Your task to perform on an android device: Search for "dell xps" on walmart, select the first entry, and add it to the cart. Image 0: 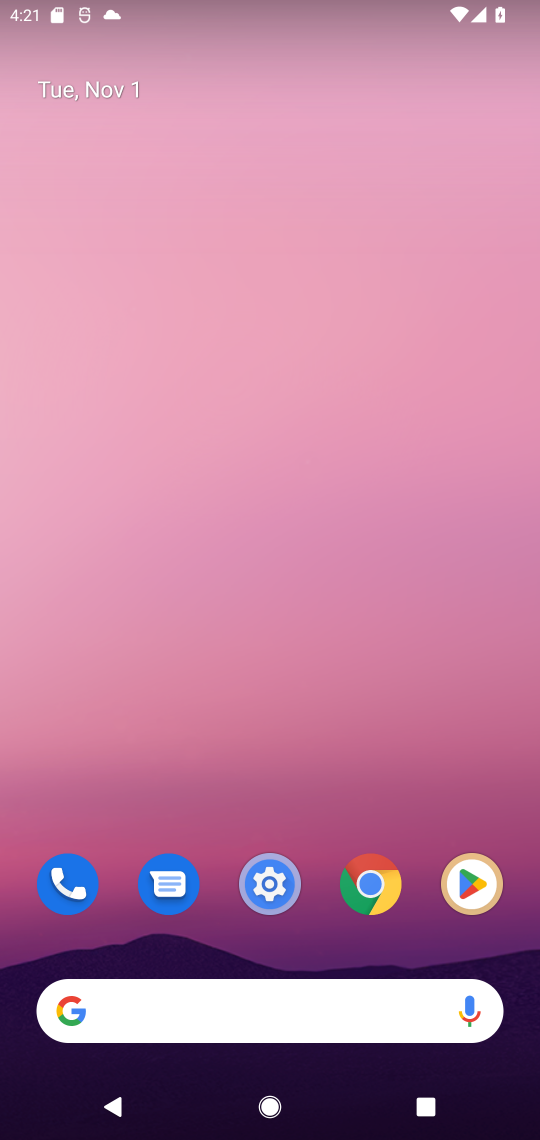
Step 0: press home button
Your task to perform on an android device: Search for "dell xps" on walmart, select the first entry, and add it to the cart. Image 1: 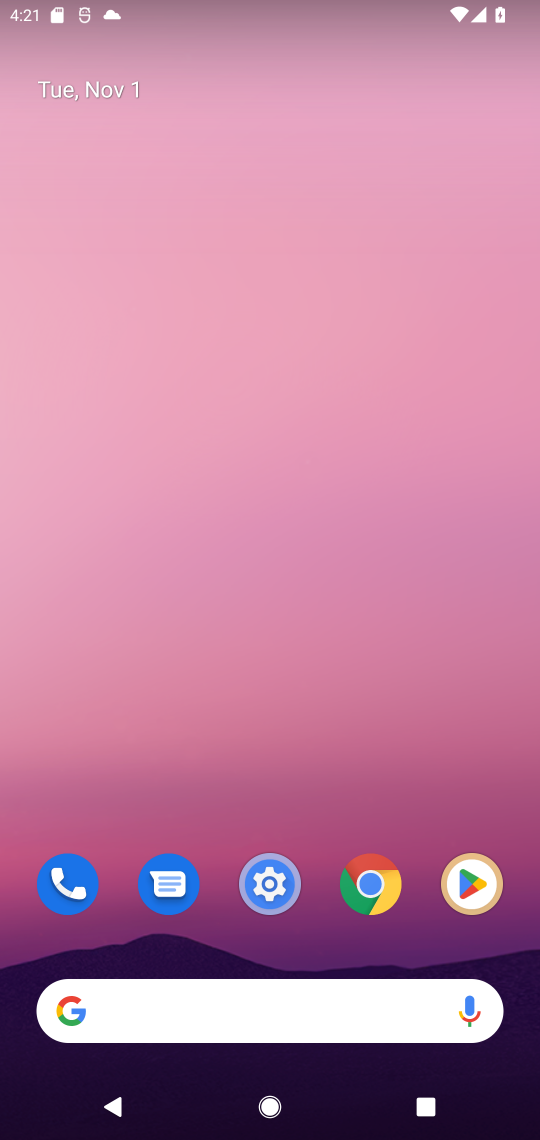
Step 1: click (93, 1020)
Your task to perform on an android device: Search for "dell xps" on walmart, select the first entry, and add it to the cart. Image 2: 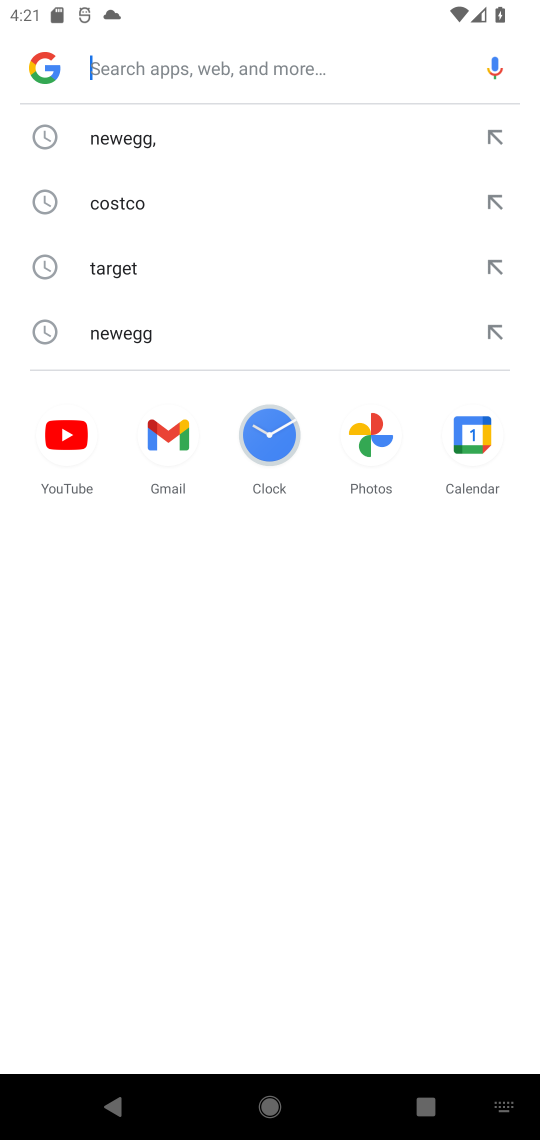
Step 2: press enter
Your task to perform on an android device: Search for "dell xps" on walmart, select the first entry, and add it to the cart. Image 3: 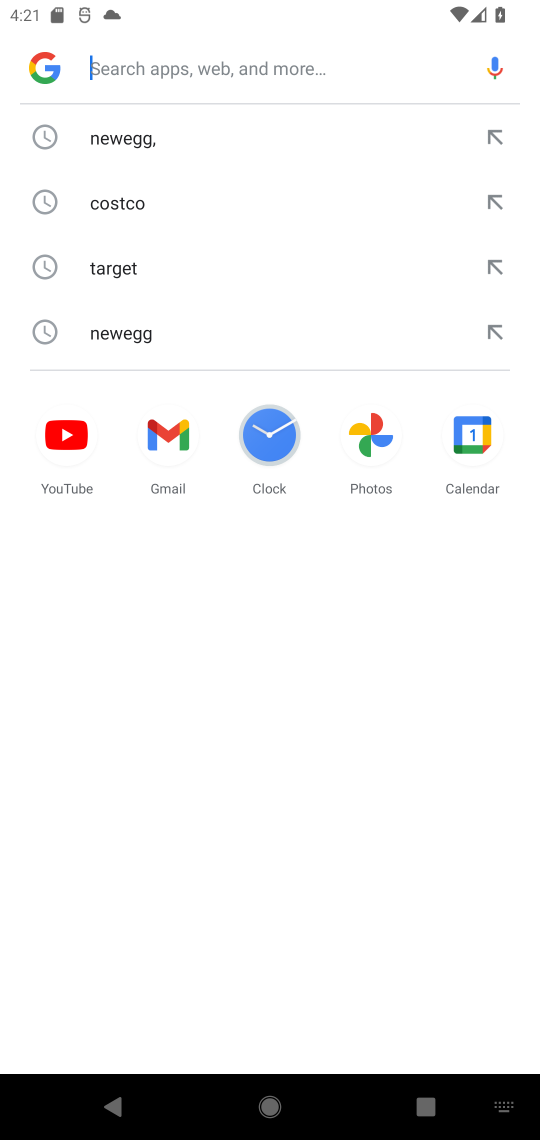
Step 3: type " walmart,"
Your task to perform on an android device: Search for "dell xps" on walmart, select the first entry, and add it to the cart. Image 4: 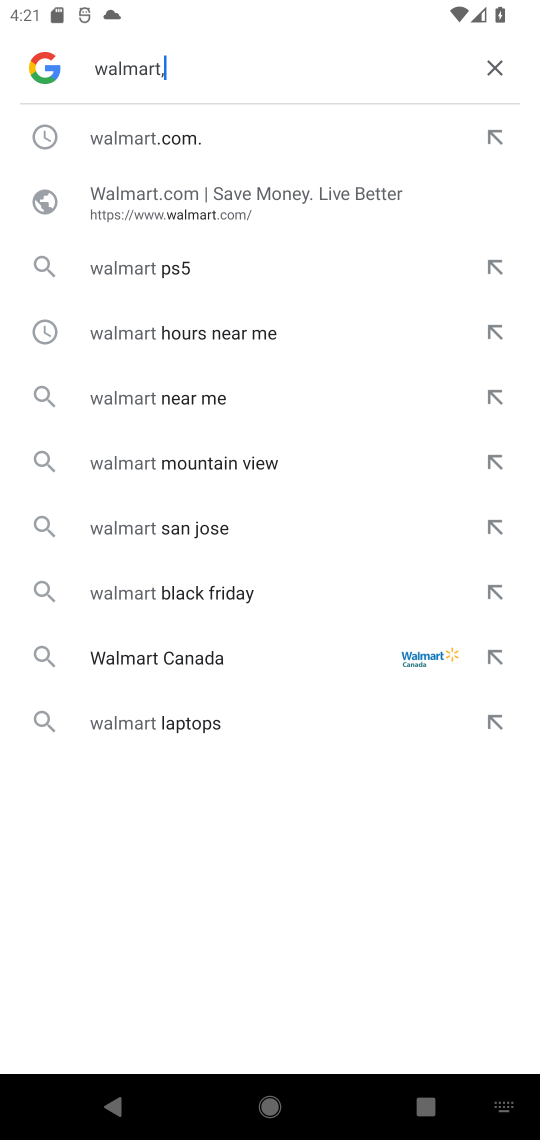
Step 4: click (189, 137)
Your task to perform on an android device: Search for "dell xps" on walmart, select the first entry, and add it to the cart. Image 5: 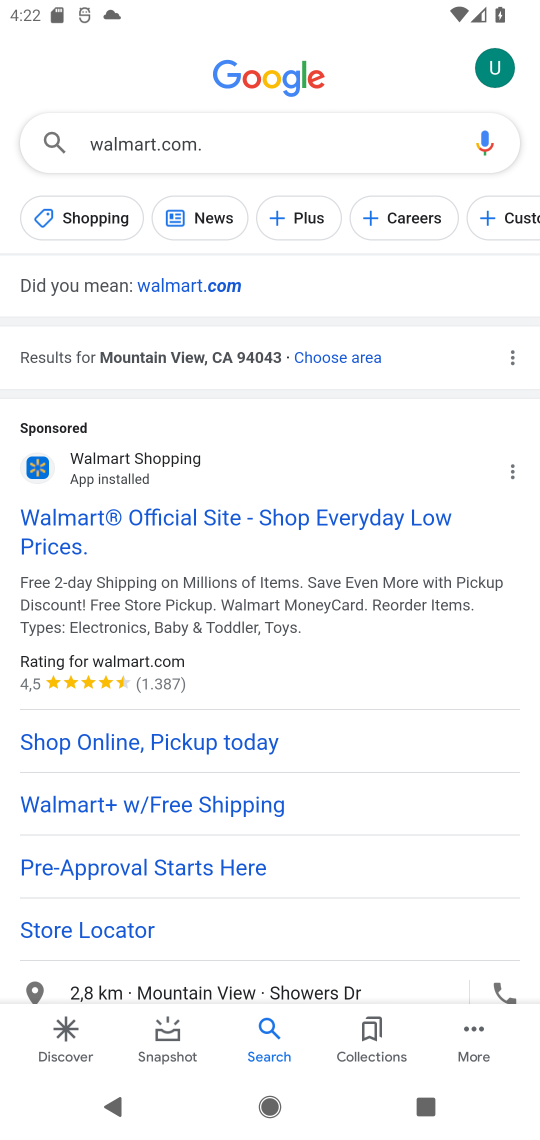
Step 5: click (231, 533)
Your task to perform on an android device: Search for "dell xps" on walmart, select the first entry, and add it to the cart. Image 6: 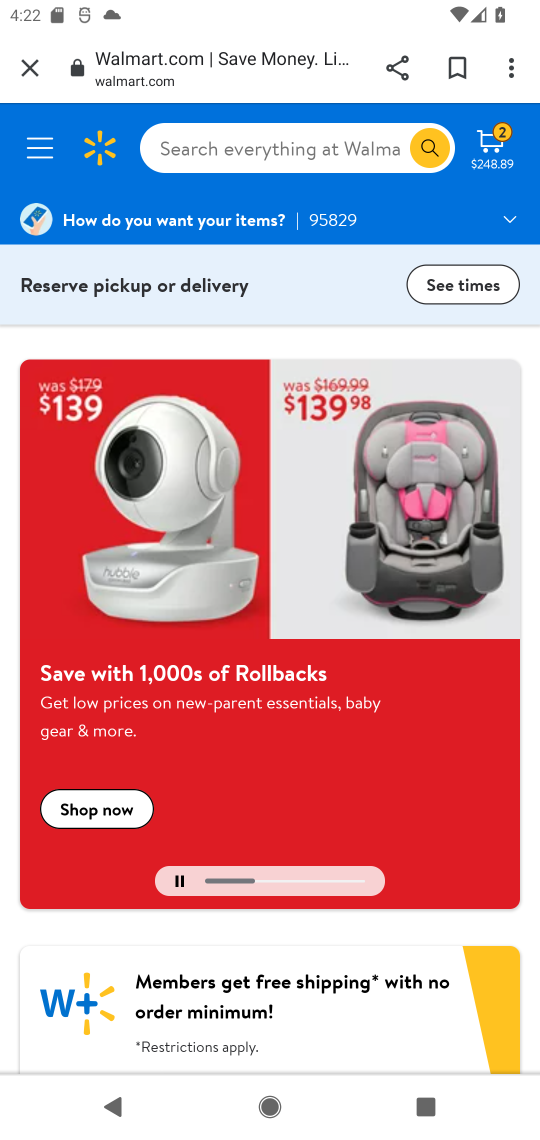
Step 6: click (220, 141)
Your task to perform on an android device: Search for "dell xps" on walmart, select the first entry, and add it to the cart. Image 7: 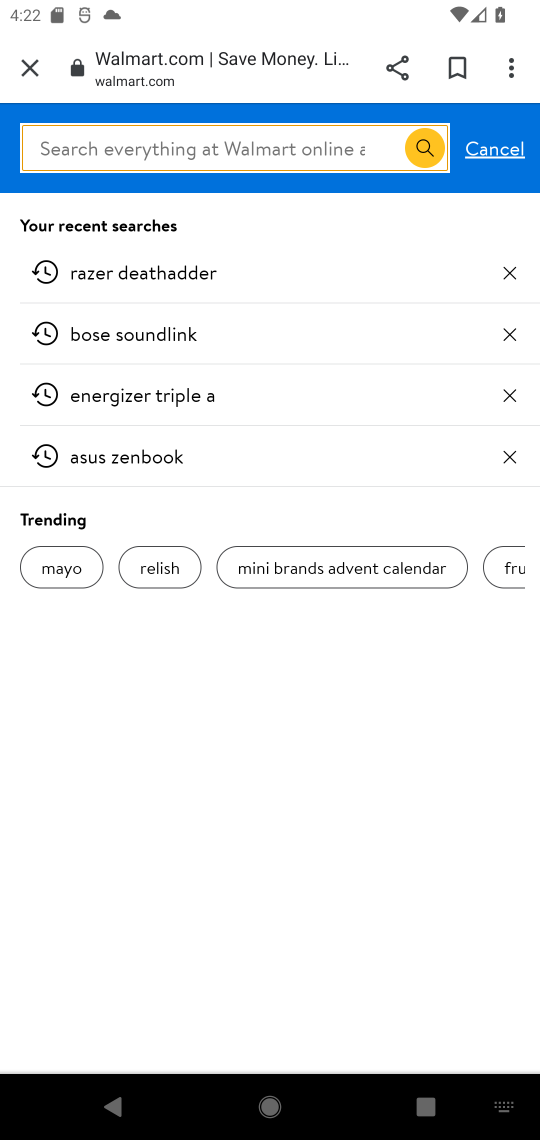
Step 7: type "dell xps"
Your task to perform on an android device: Search for "dell xps" on walmart, select the first entry, and add it to the cart. Image 8: 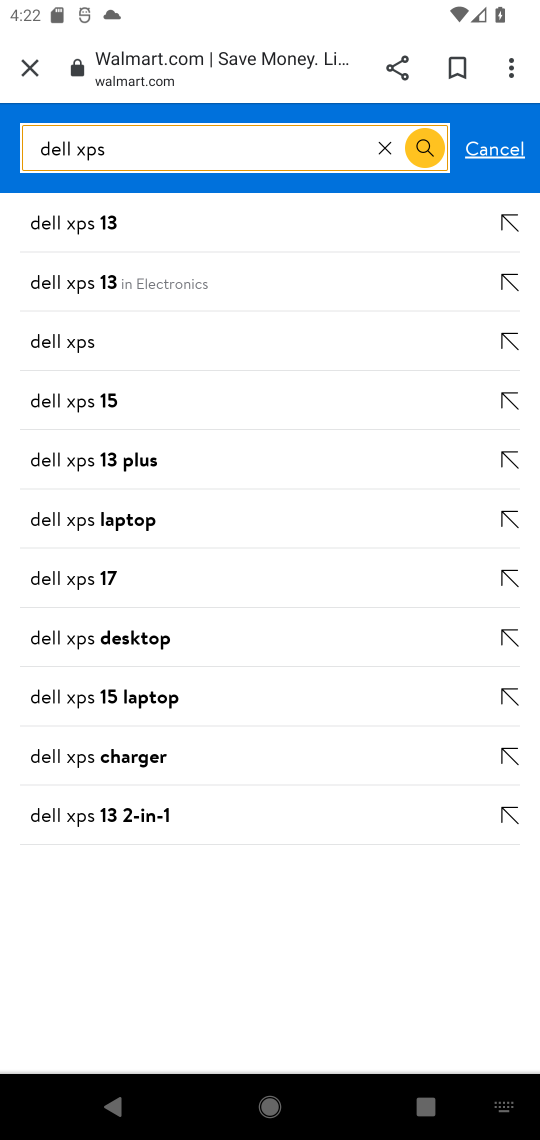
Step 8: click (424, 139)
Your task to perform on an android device: Search for "dell xps" on walmart, select the first entry, and add it to the cart. Image 9: 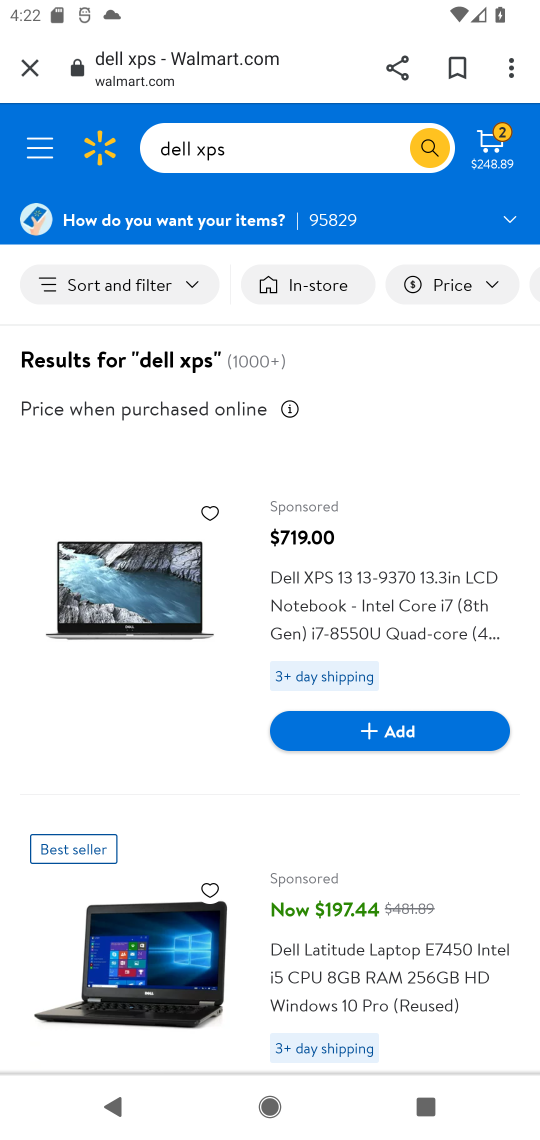
Step 9: click (391, 731)
Your task to perform on an android device: Search for "dell xps" on walmart, select the first entry, and add it to the cart. Image 10: 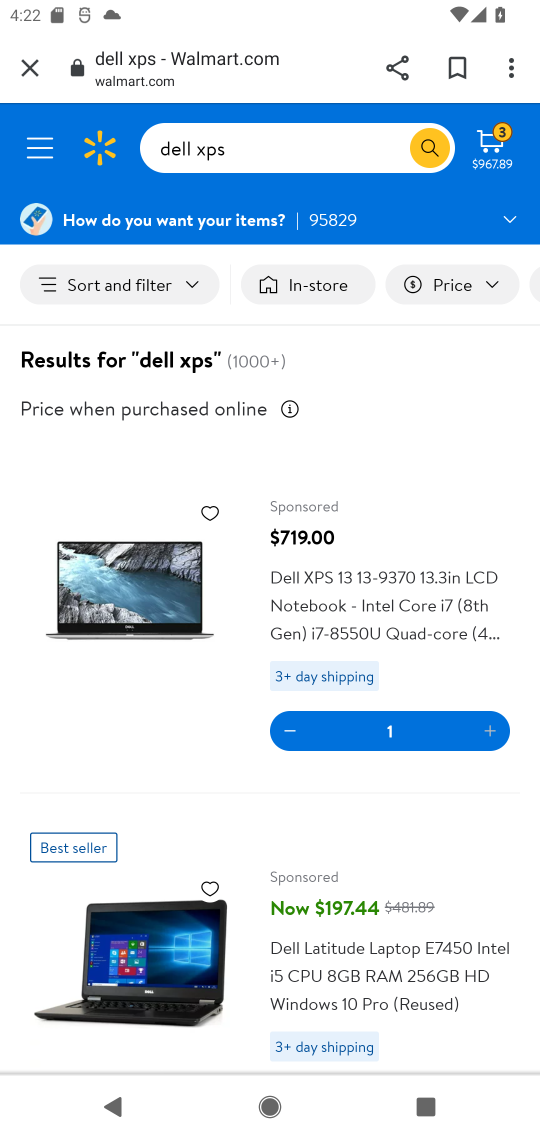
Step 10: task complete